Your task to perform on an android device: empty trash in google photos Image 0: 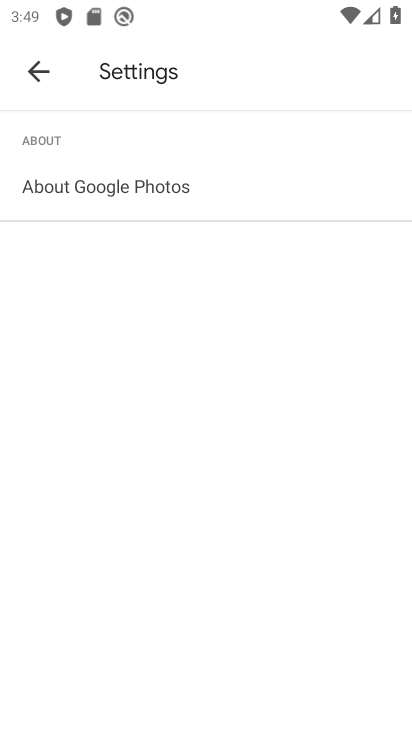
Step 0: press home button
Your task to perform on an android device: empty trash in google photos Image 1: 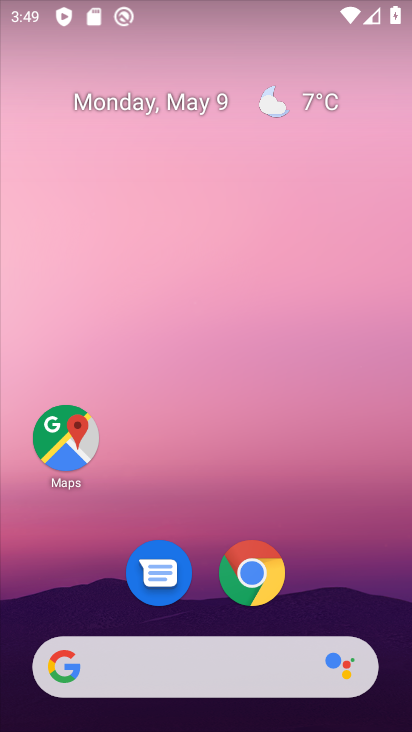
Step 1: drag from (340, 594) to (292, 41)
Your task to perform on an android device: empty trash in google photos Image 2: 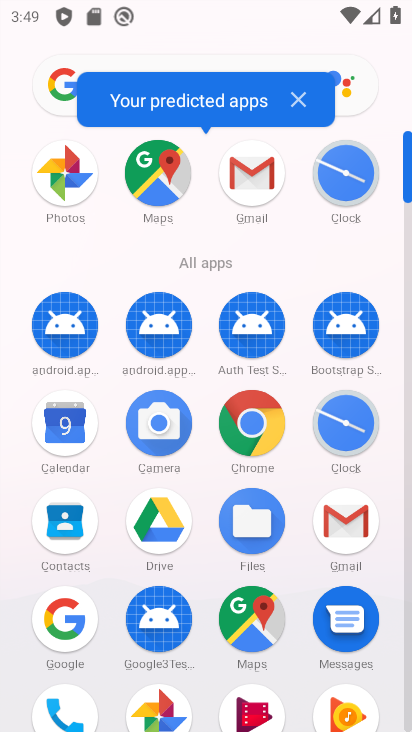
Step 2: click (157, 693)
Your task to perform on an android device: empty trash in google photos Image 3: 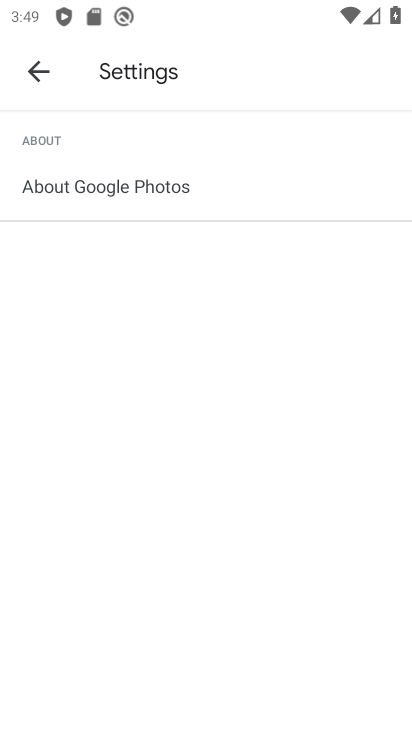
Step 3: click (30, 80)
Your task to perform on an android device: empty trash in google photos Image 4: 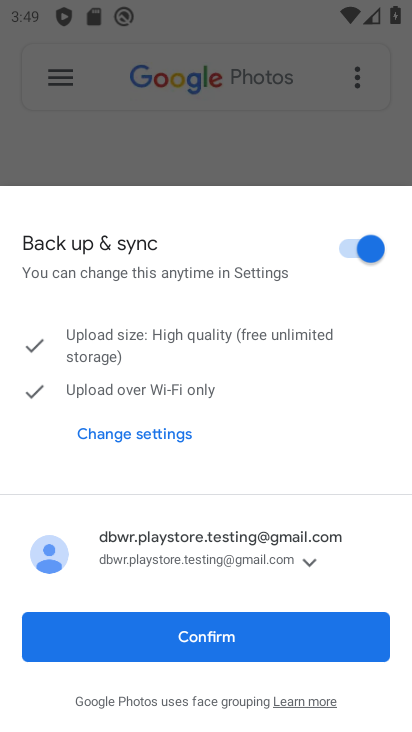
Step 4: click (42, 94)
Your task to perform on an android device: empty trash in google photos Image 5: 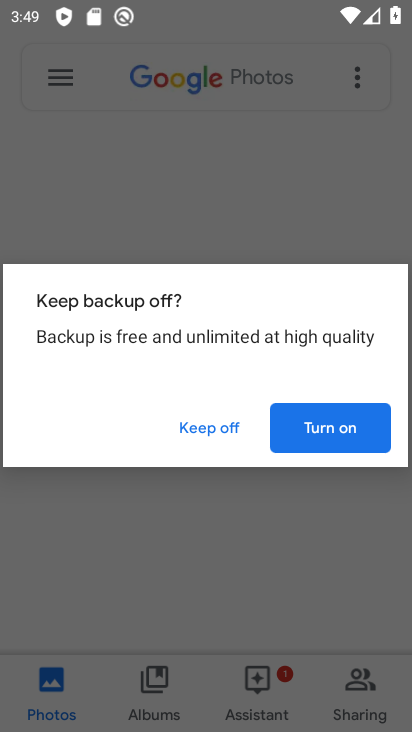
Step 5: click (230, 431)
Your task to perform on an android device: empty trash in google photos Image 6: 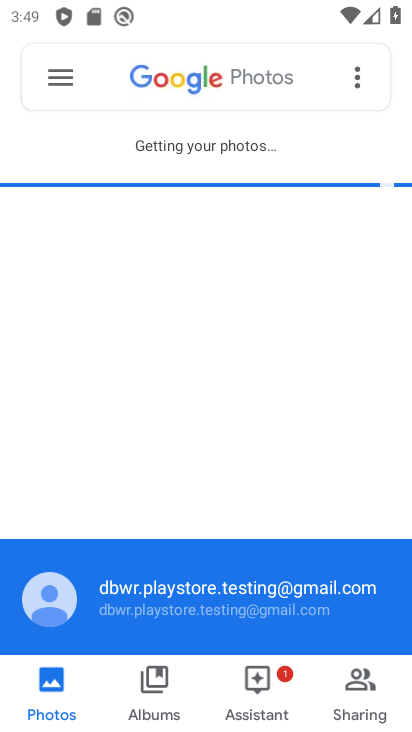
Step 6: click (62, 77)
Your task to perform on an android device: empty trash in google photos Image 7: 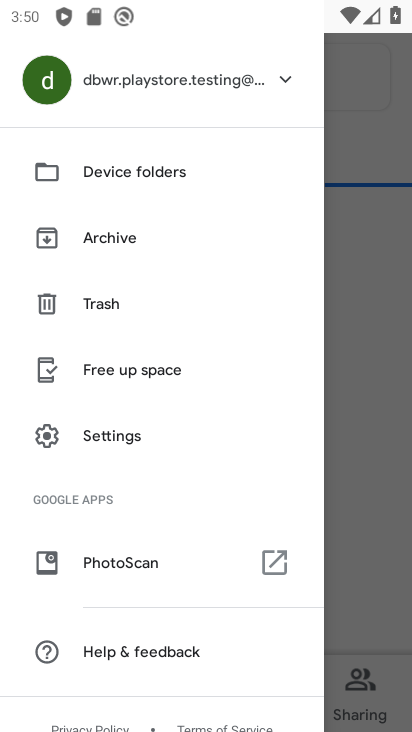
Step 7: click (125, 310)
Your task to perform on an android device: empty trash in google photos Image 8: 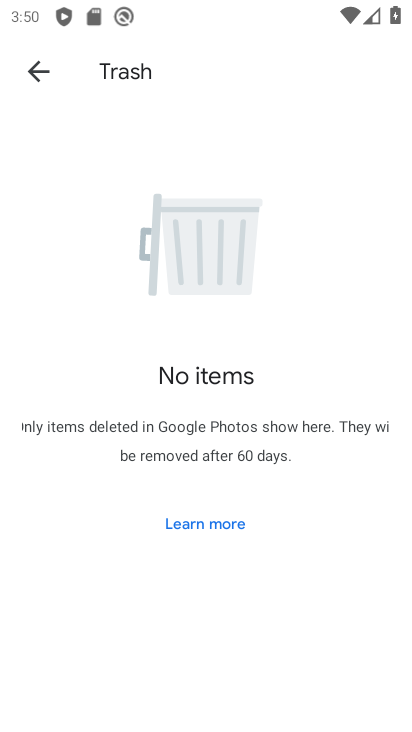
Step 8: task complete